Your task to perform on an android device: all mails in gmail Image 0: 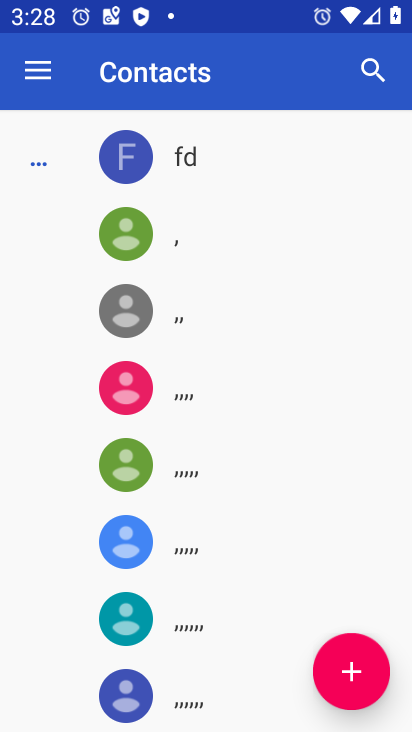
Step 0: press back button
Your task to perform on an android device: all mails in gmail Image 1: 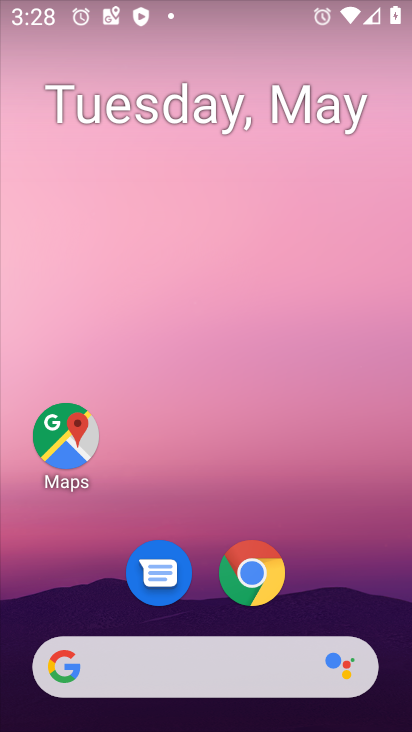
Step 1: drag from (295, 411) to (241, 40)
Your task to perform on an android device: all mails in gmail Image 2: 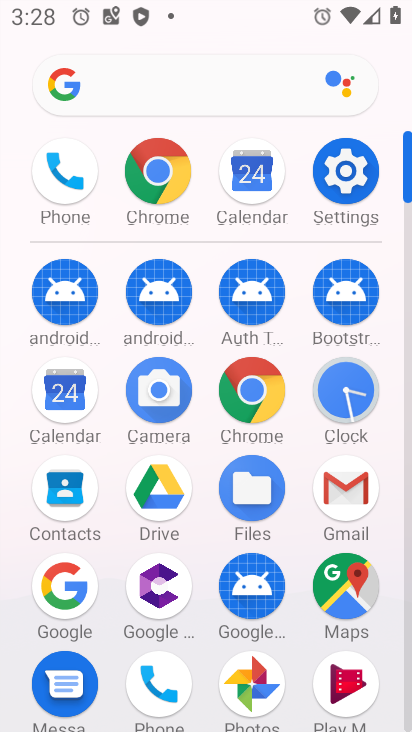
Step 2: click (342, 481)
Your task to perform on an android device: all mails in gmail Image 3: 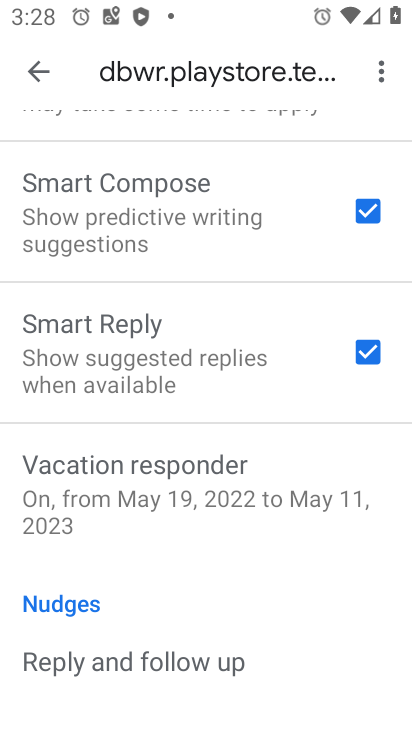
Step 3: click (39, 62)
Your task to perform on an android device: all mails in gmail Image 4: 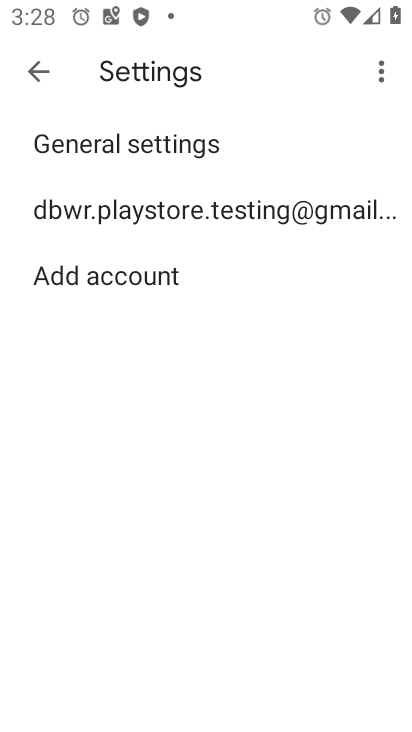
Step 4: click (42, 70)
Your task to perform on an android device: all mails in gmail Image 5: 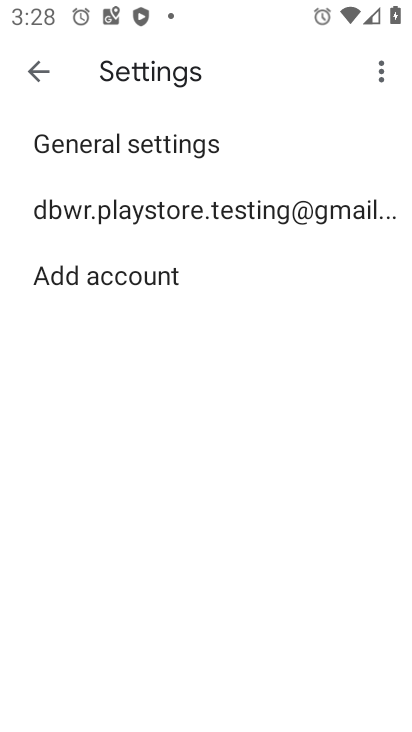
Step 5: click (41, 71)
Your task to perform on an android device: all mails in gmail Image 6: 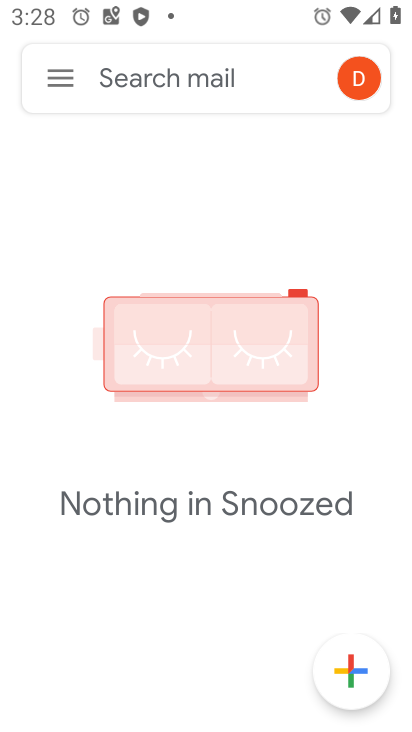
Step 6: click (41, 71)
Your task to perform on an android device: all mails in gmail Image 7: 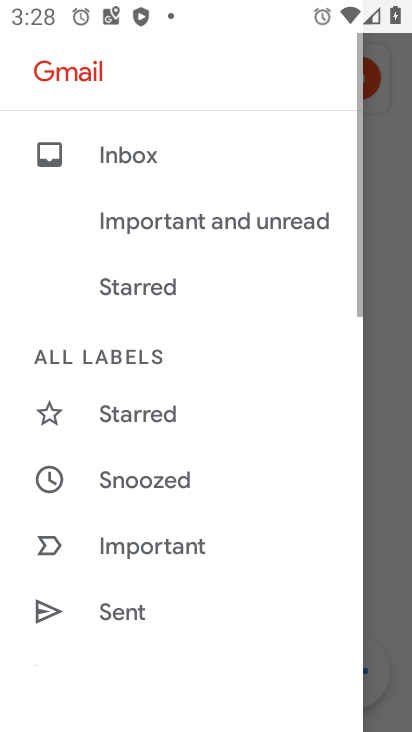
Step 7: drag from (208, 563) to (214, 135)
Your task to perform on an android device: all mails in gmail Image 8: 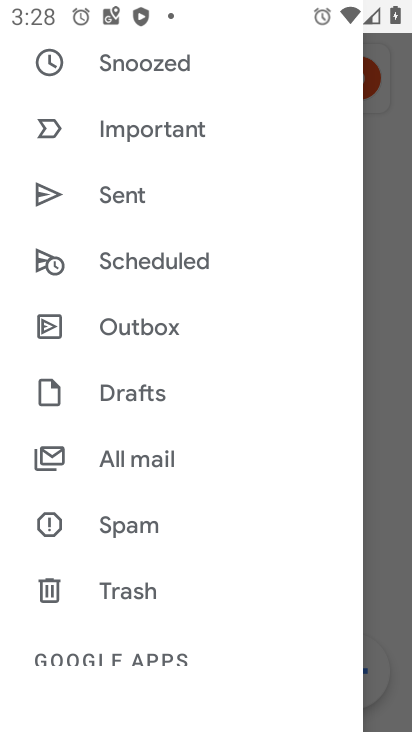
Step 8: click (160, 455)
Your task to perform on an android device: all mails in gmail Image 9: 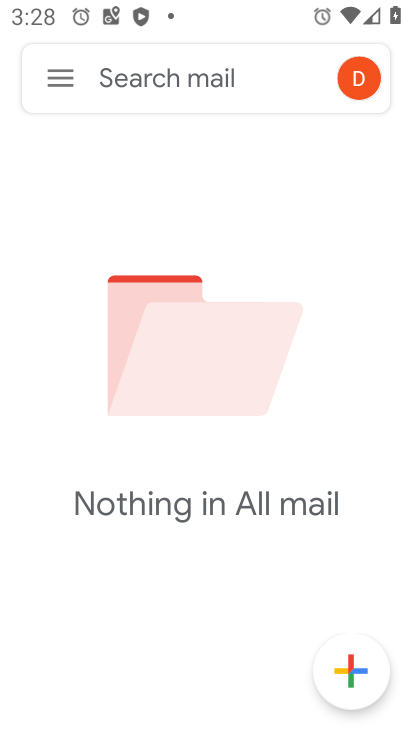
Step 9: task complete